Your task to perform on an android device: Is it going to rain this weekend? Image 0: 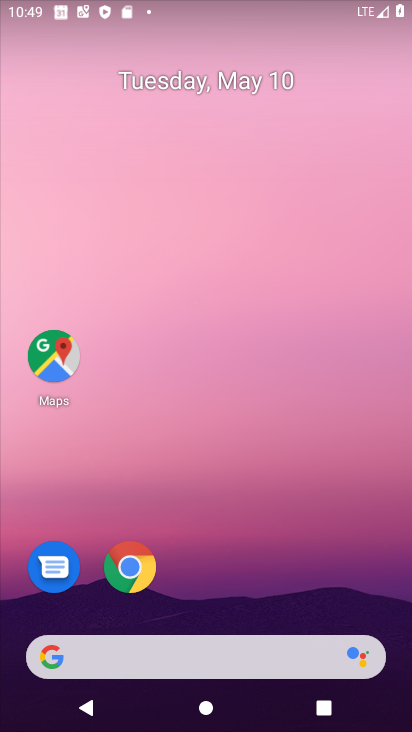
Step 0: press home button
Your task to perform on an android device: Is it going to rain this weekend? Image 1: 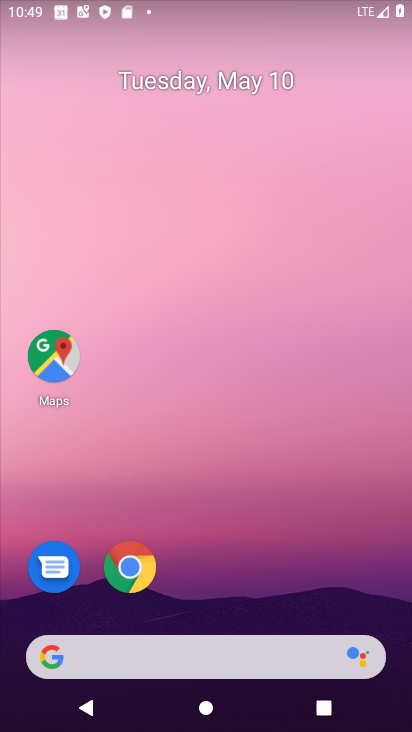
Step 1: click (109, 645)
Your task to perform on an android device: Is it going to rain this weekend? Image 2: 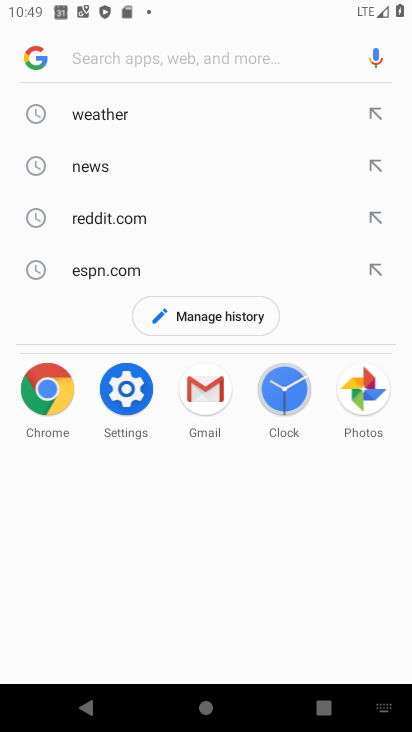
Step 2: click (102, 110)
Your task to perform on an android device: Is it going to rain this weekend? Image 3: 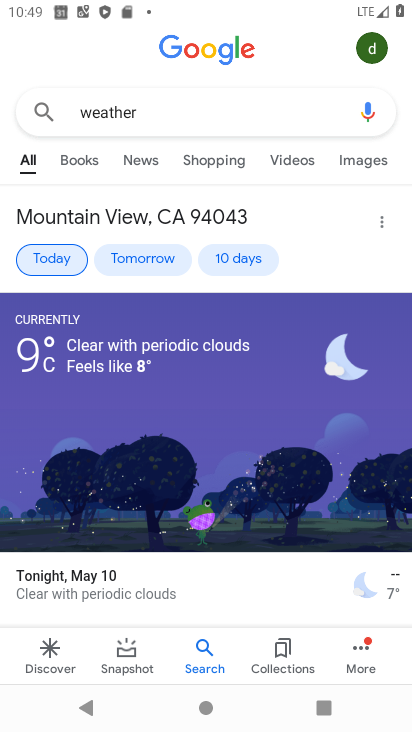
Step 3: task complete